Your task to perform on an android device: make emails show in primary in the gmail app Image 0: 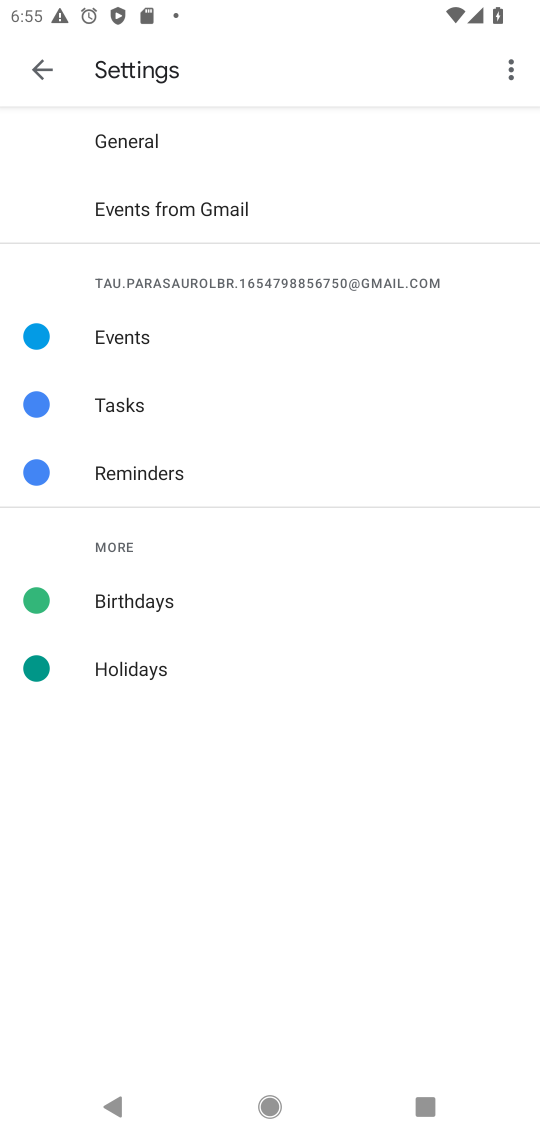
Step 0: press home button
Your task to perform on an android device: make emails show in primary in the gmail app Image 1: 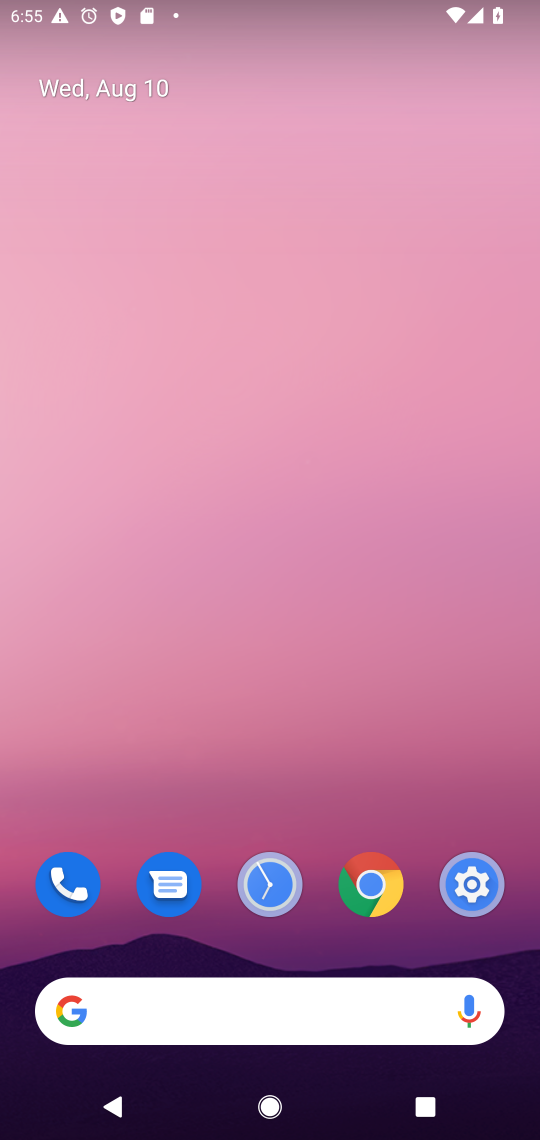
Step 1: drag from (50, 1070) to (442, 331)
Your task to perform on an android device: make emails show in primary in the gmail app Image 2: 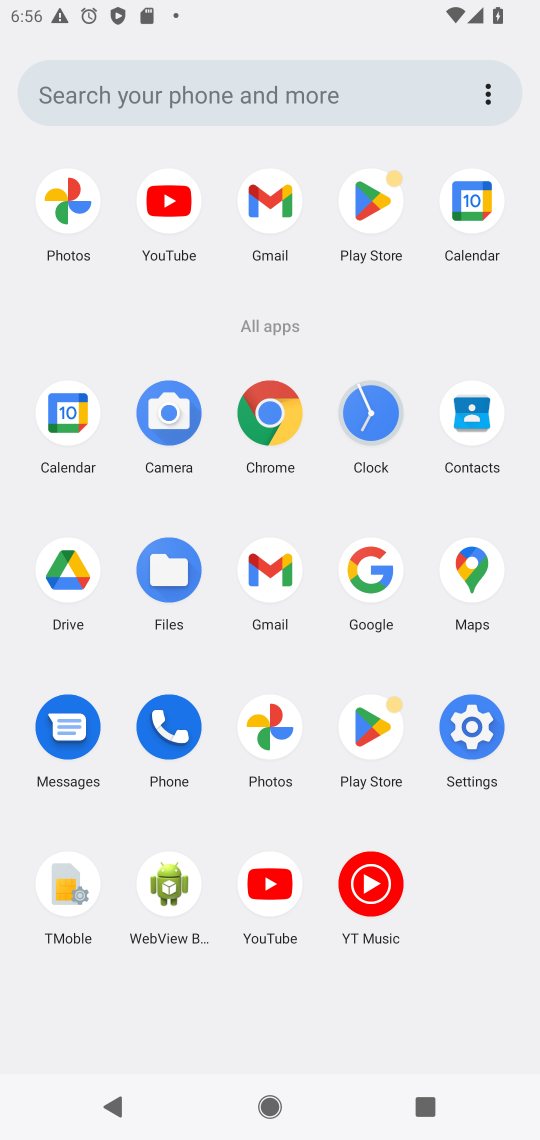
Step 2: click (262, 557)
Your task to perform on an android device: make emails show in primary in the gmail app Image 3: 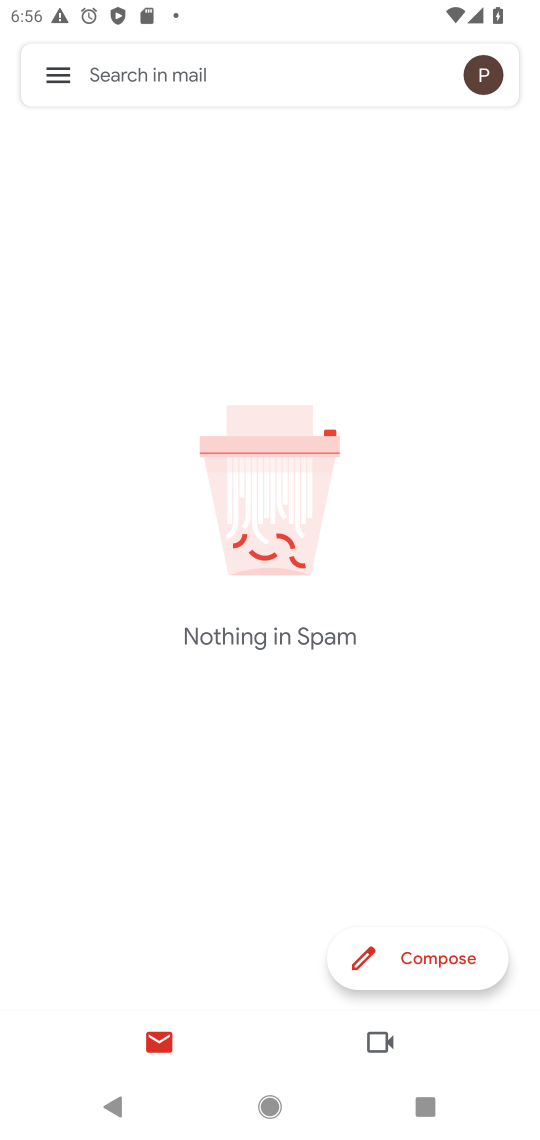
Step 3: click (57, 78)
Your task to perform on an android device: make emails show in primary in the gmail app Image 4: 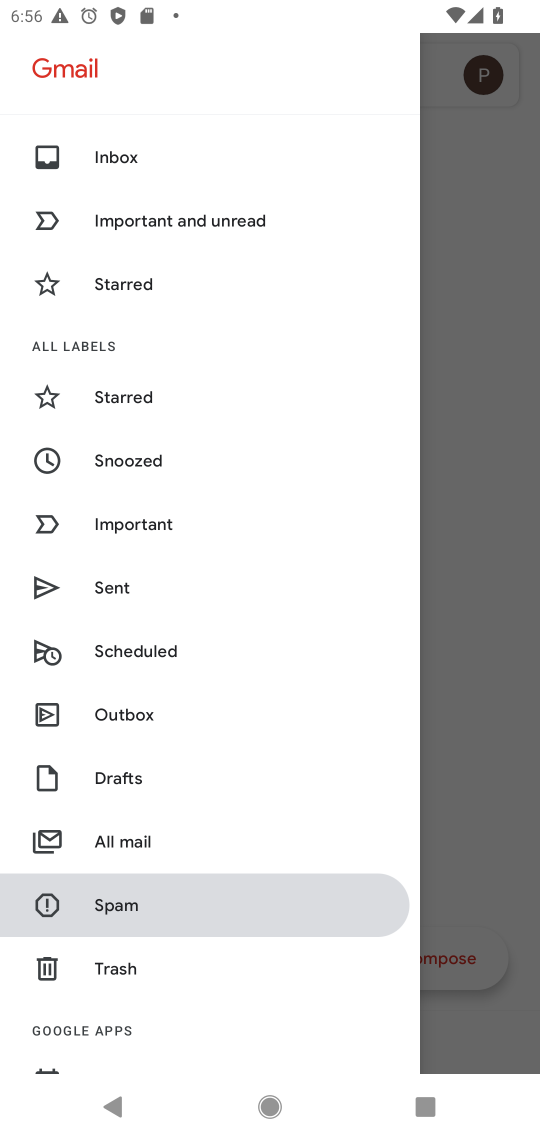
Step 4: click (136, 169)
Your task to perform on an android device: make emails show in primary in the gmail app Image 5: 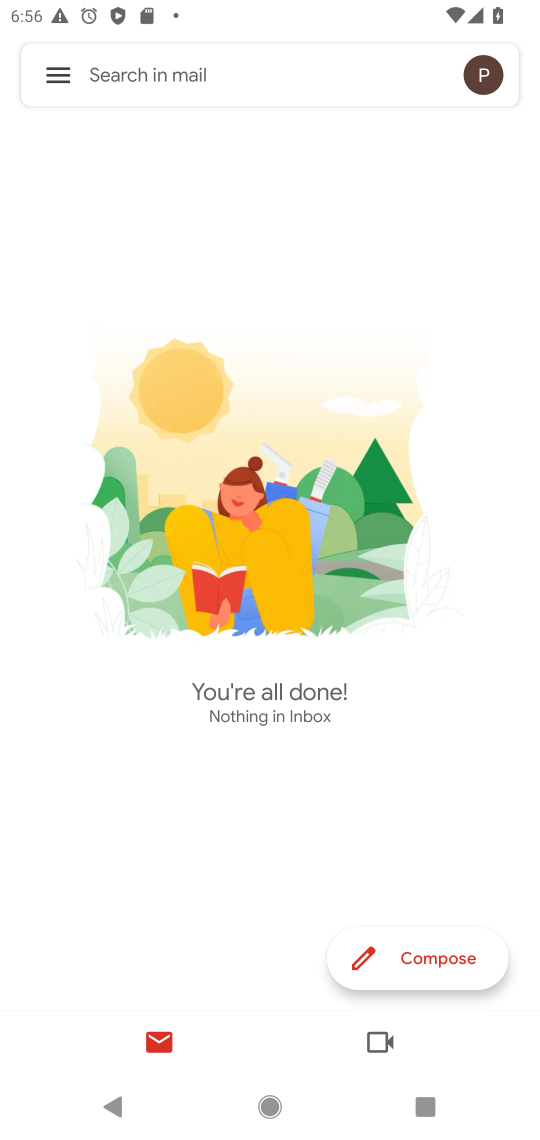
Step 5: click (52, 82)
Your task to perform on an android device: make emails show in primary in the gmail app Image 6: 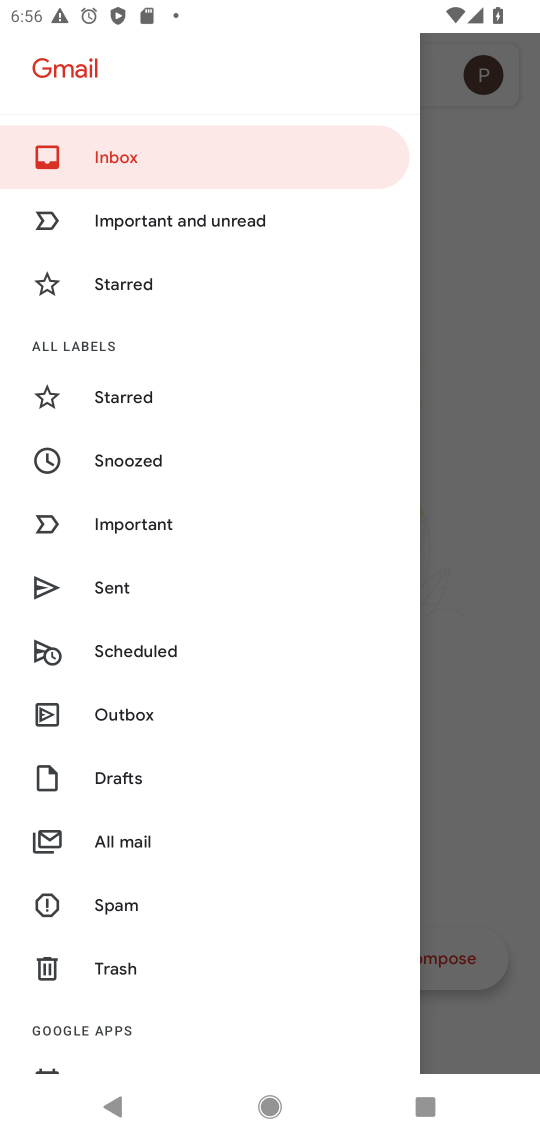
Step 6: click (145, 135)
Your task to perform on an android device: make emails show in primary in the gmail app Image 7: 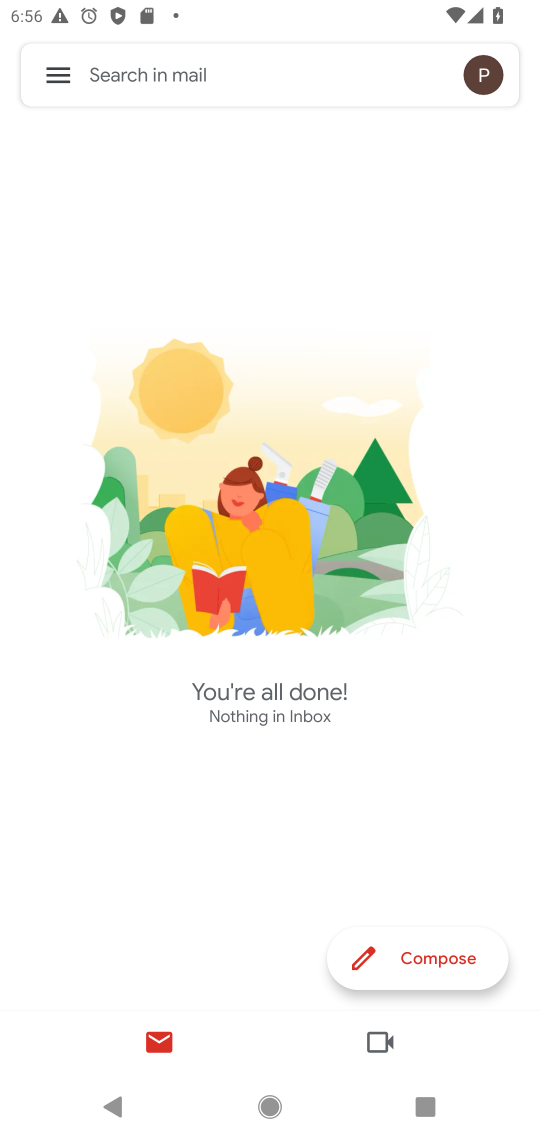
Step 7: task complete